Your task to perform on an android device: open a new tab in the chrome app Image 0: 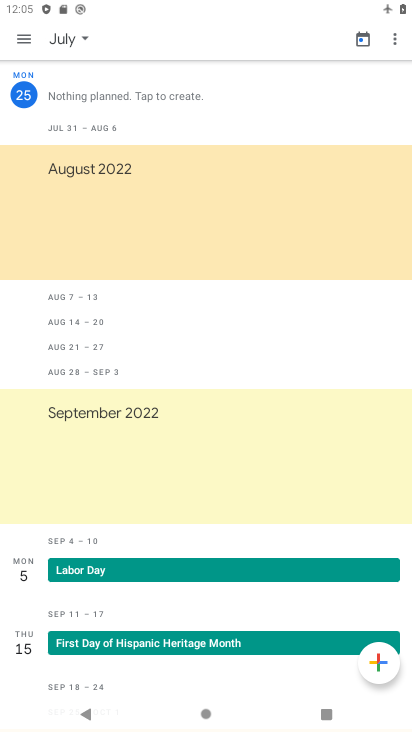
Step 0: press home button
Your task to perform on an android device: open a new tab in the chrome app Image 1: 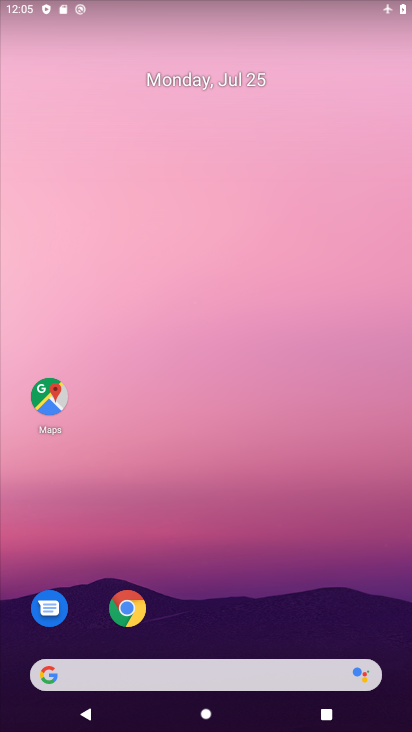
Step 1: drag from (253, 613) to (223, 112)
Your task to perform on an android device: open a new tab in the chrome app Image 2: 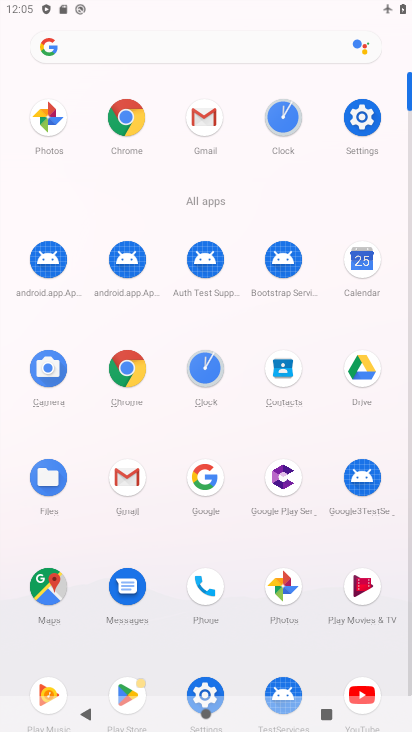
Step 2: click (131, 387)
Your task to perform on an android device: open a new tab in the chrome app Image 3: 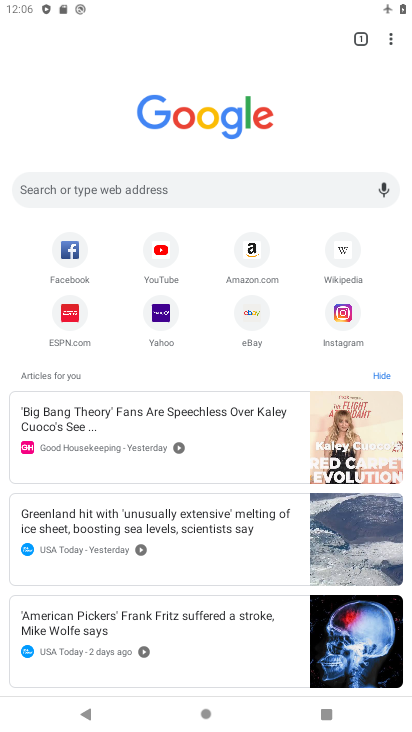
Step 3: click (368, 42)
Your task to perform on an android device: open a new tab in the chrome app Image 4: 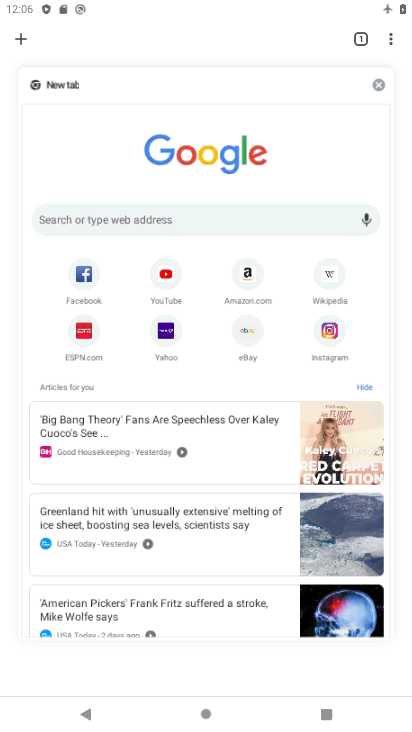
Step 4: click (23, 33)
Your task to perform on an android device: open a new tab in the chrome app Image 5: 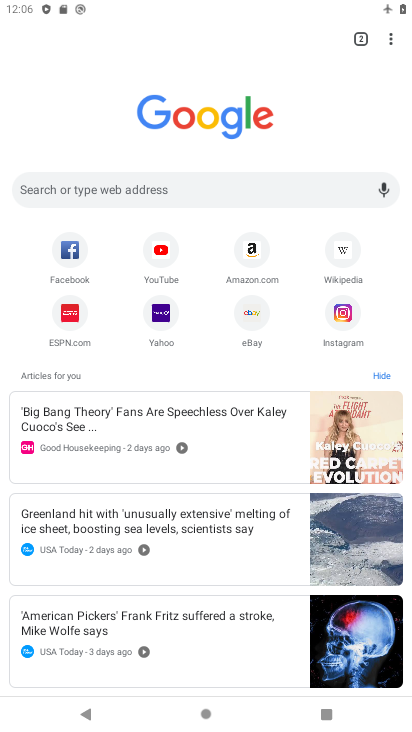
Step 5: task complete